Your task to perform on an android device: change the clock display to digital Image 0: 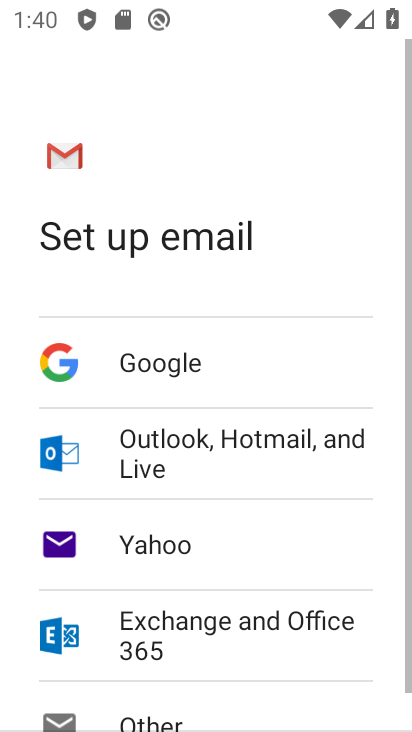
Step 0: press home button
Your task to perform on an android device: change the clock display to digital Image 1: 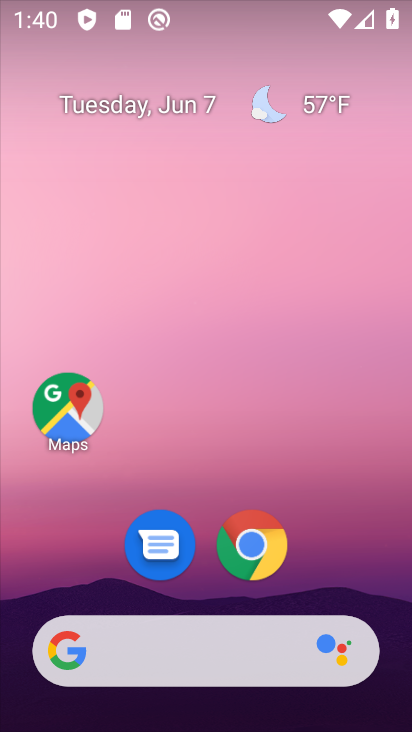
Step 1: drag from (366, 549) to (183, 1)
Your task to perform on an android device: change the clock display to digital Image 2: 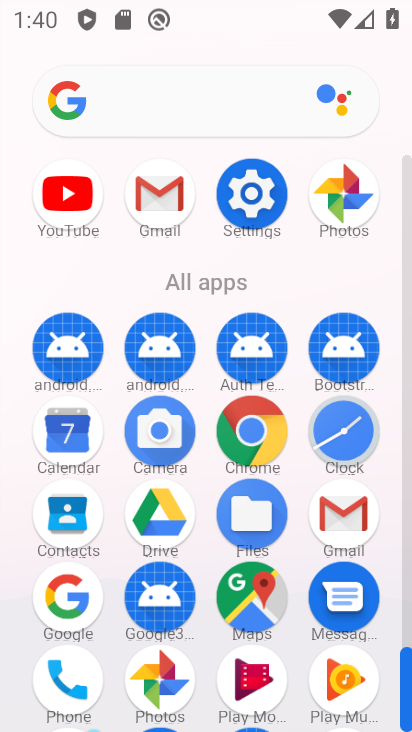
Step 2: click (345, 442)
Your task to perform on an android device: change the clock display to digital Image 3: 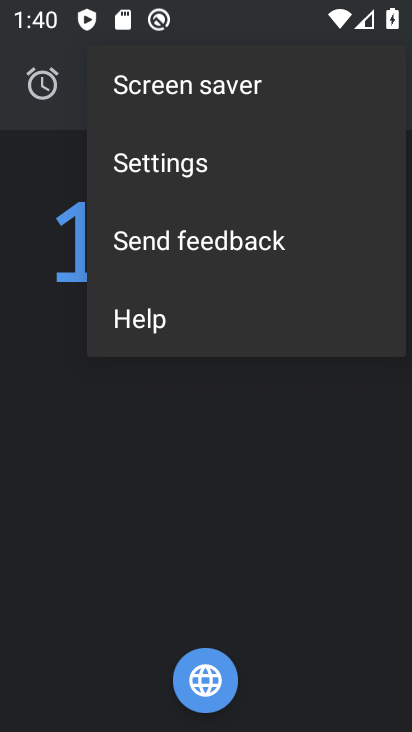
Step 3: click (187, 166)
Your task to perform on an android device: change the clock display to digital Image 4: 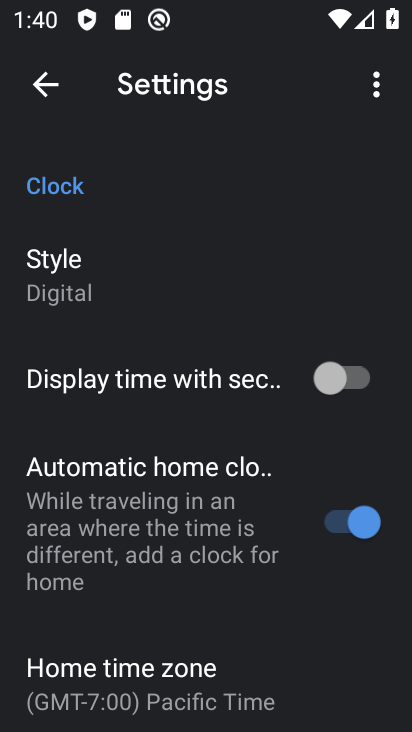
Step 4: task complete